Your task to perform on an android device: snooze an email in the gmail app Image 0: 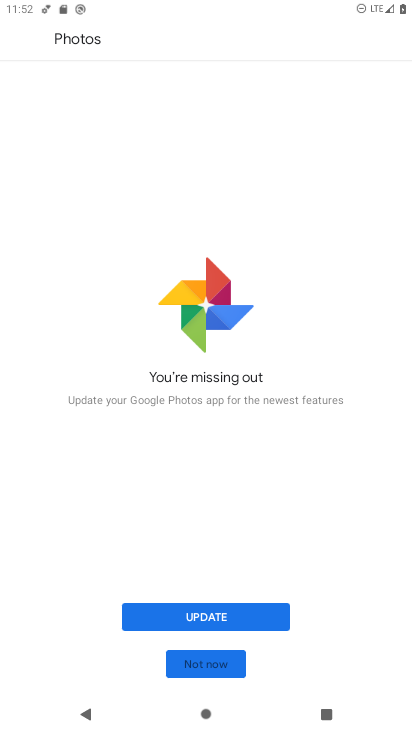
Step 0: press home button
Your task to perform on an android device: snooze an email in the gmail app Image 1: 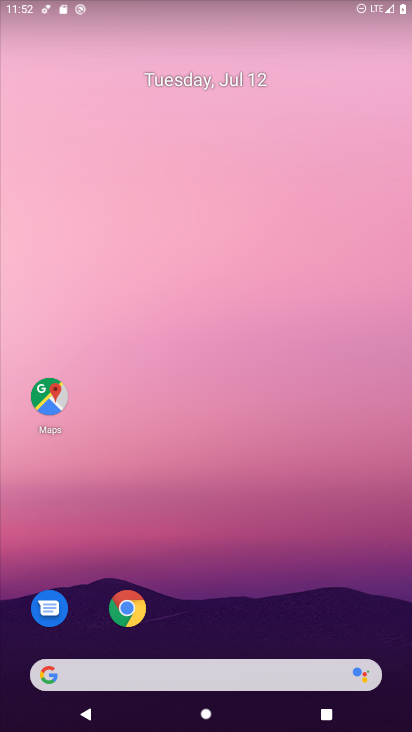
Step 1: click (244, 102)
Your task to perform on an android device: snooze an email in the gmail app Image 2: 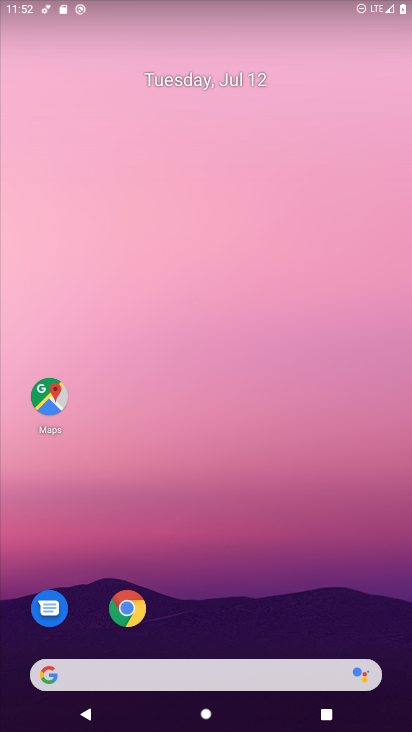
Step 2: drag from (179, 631) to (237, 61)
Your task to perform on an android device: snooze an email in the gmail app Image 3: 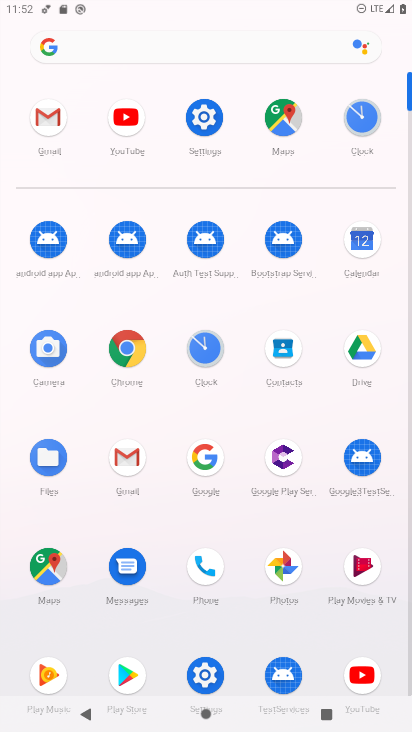
Step 3: click (45, 114)
Your task to perform on an android device: snooze an email in the gmail app Image 4: 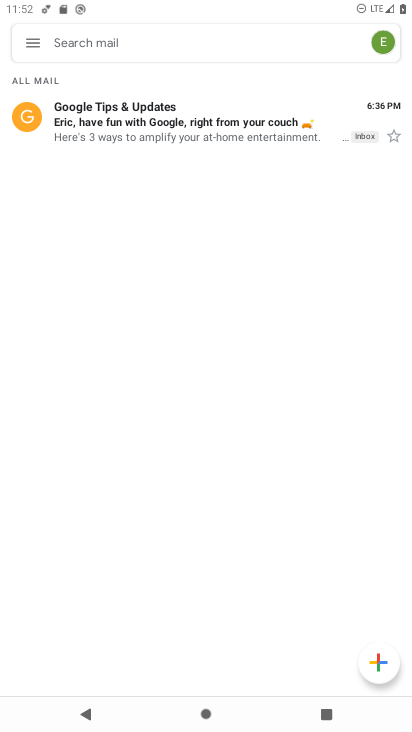
Step 4: click (30, 121)
Your task to perform on an android device: snooze an email in the gmail app Image 5: 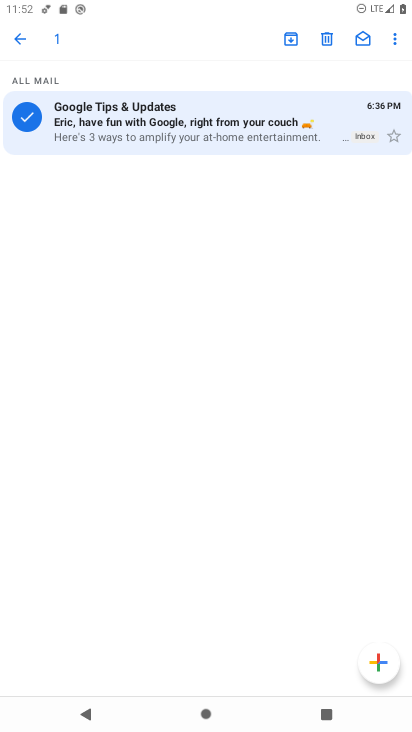
Step 5: click (396, 43)
Your task to perform on an android device: snooze an email in the gmail app Image 6: 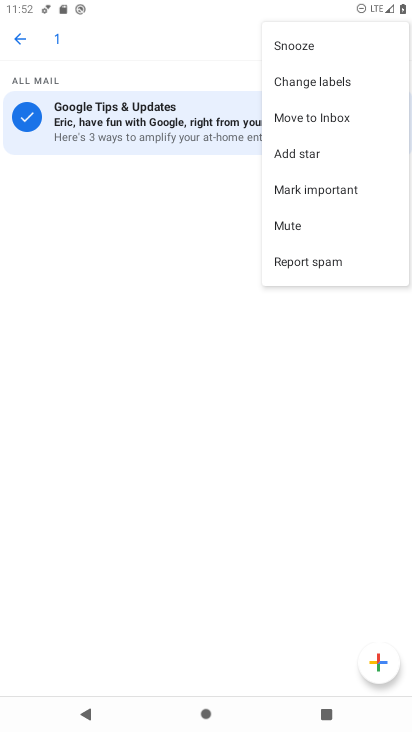
Step 6: click (326, 51)
Your task to perform on an android device: snooze an email in the gmail app Image 7: 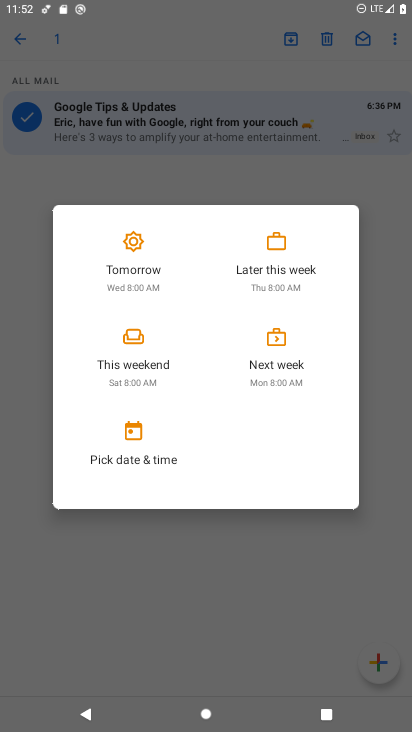
Step 7: click (293, 333)
Your task to perform on an android device: snooze an email in the gmail app Image 8: 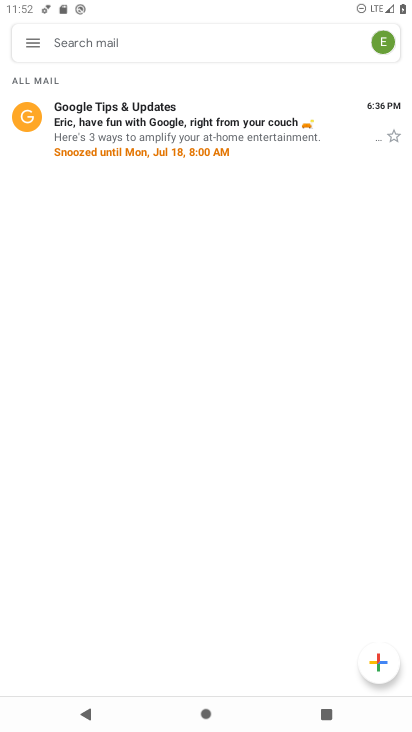
Step 8: task complete